Your task to perform on an android device: see tabs open on other devices in the chrome app Image 0: 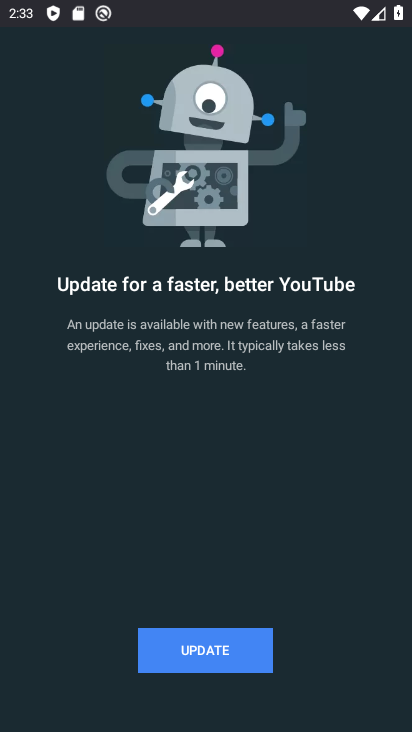
Step 0: press home button
Your task to perform on an android device: see tabs open on other devices in the chrome app Image 1: 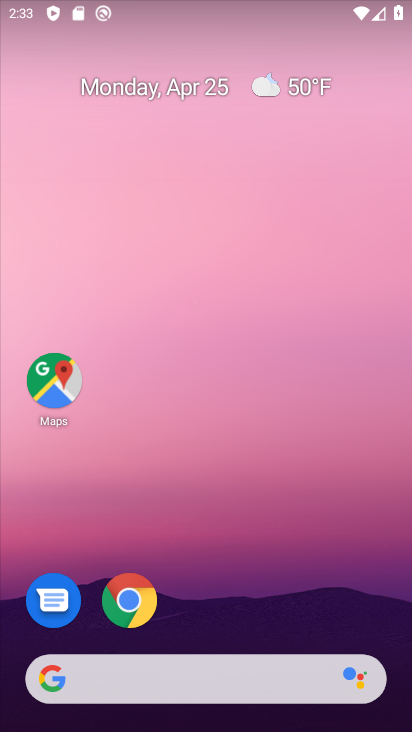
Step 1: drag from (363, 621) to (371, 199)
Your task to perform on an android device: see tabs open on other devices in the chrome app Image 2: 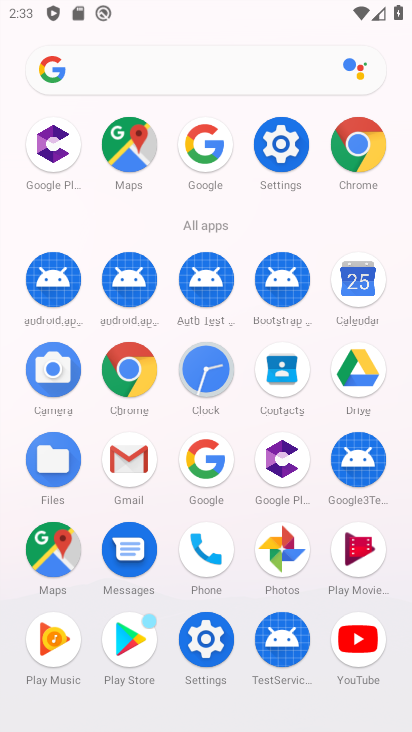
Step 2: click (110, 382)
Your task to perform on an android device: see tabs open on other devices in the chrome app Image 3: 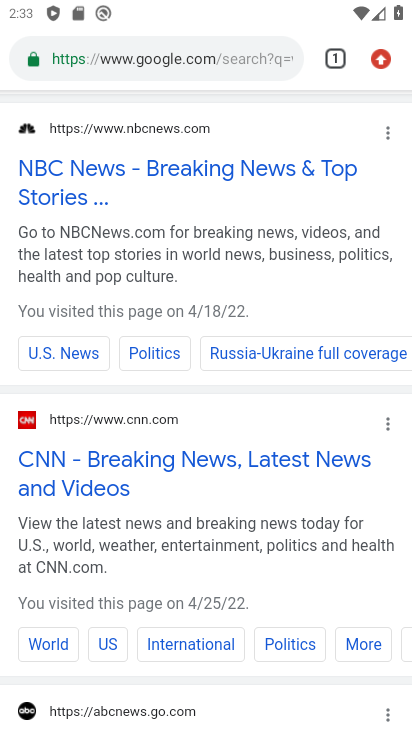
Step 3: drag from (382, 68) to (171, 183)
Your task to perform on an android device: see tabs open on other devices in the chrome app Image 4: 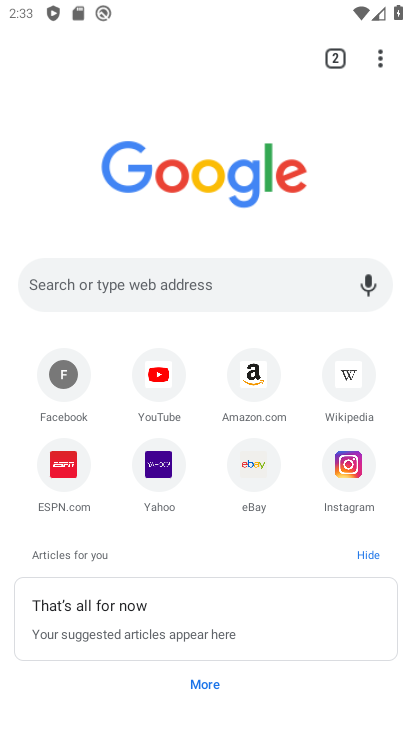
Step 4: click (335, 66)
Your task to perform on an android device: see tabs open on other devices in the chrome app Image 5: 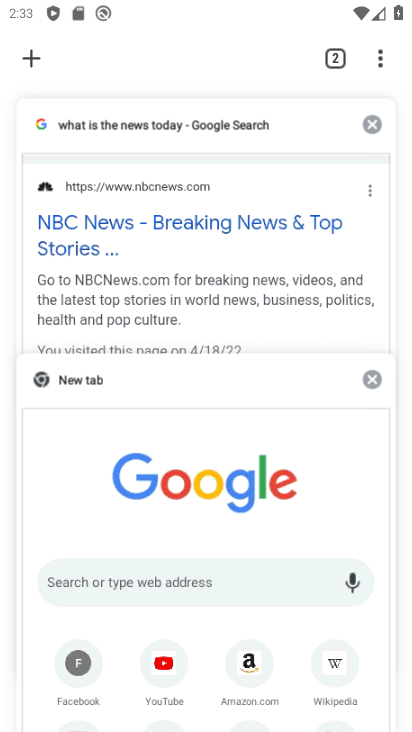
Step 5: task complete